Your task to perform on an android device: Open calendar and show me the third week of next month Image 0: 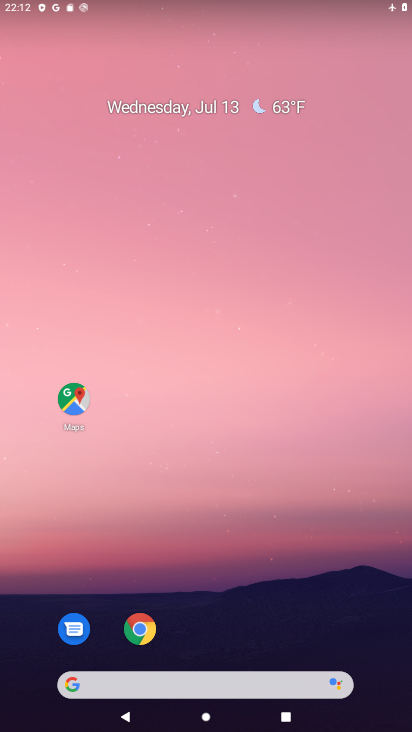
Step 0: drag from (306, 719) to (237, 346)
Your task to perform on an android device: Open calendar and show me the third week of next month Image 1: 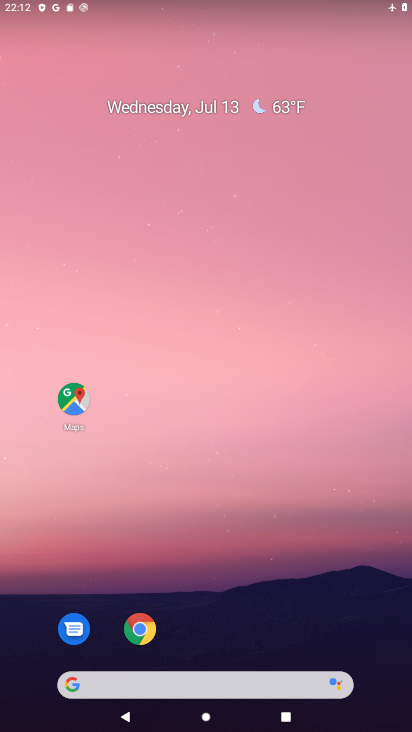
Step 1: drag from (341, 694) to (250, 285)
Your task to perform on an android device: Open calendar and show me the third week of next month Image 2: 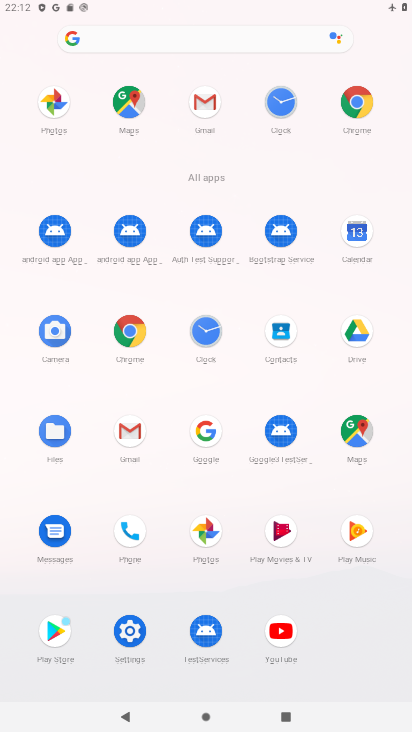
Step 2: click (353, 230)
Your task to perform on an android device: Open calendar and show me the third week of next month Image 3: 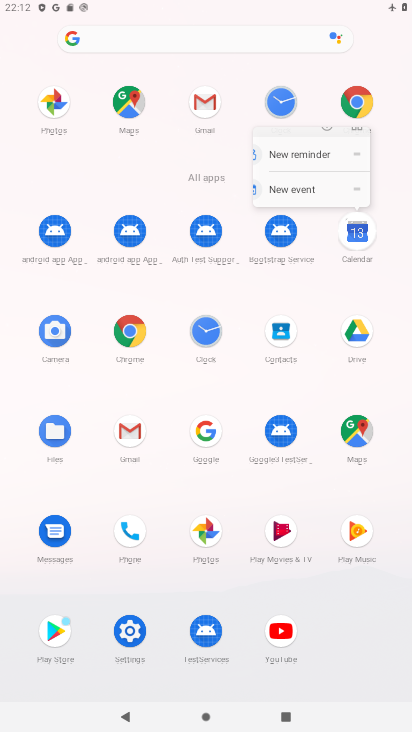
Step 3: click (353, 230)
Your task to perform on an android device: Open calendar and show me the third week of next month Image 4: 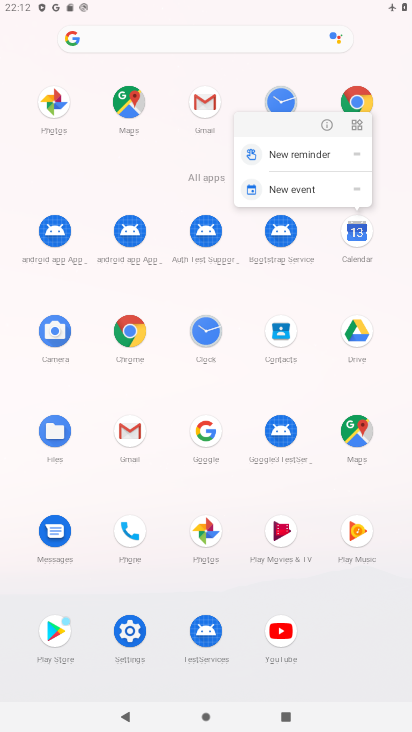
Step 4: click (353, 230)
Your task to perform on an android device: Open calendar and show me the third week of next month Image 5: 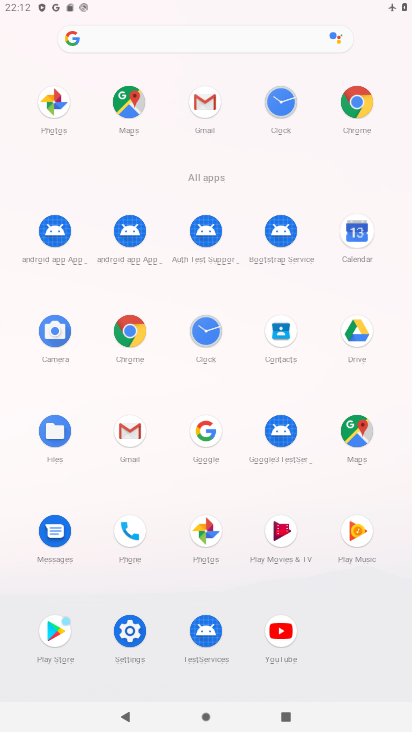
Step 5: click (353, 230)
Your task to perform on an android device: Open calendar and show me the third week of next month Image 6: 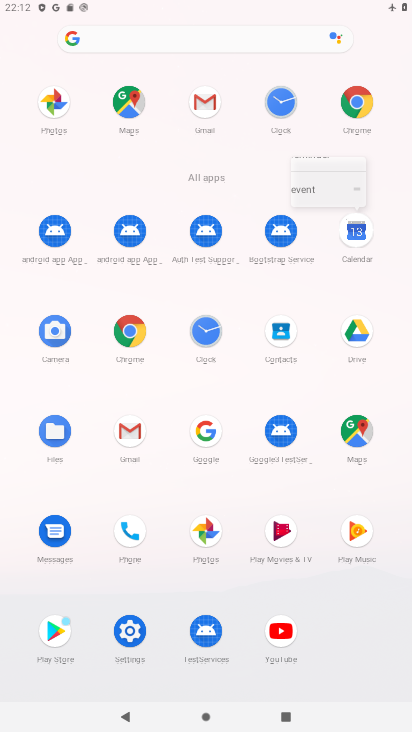
Step 6: click (354, 230)
Your task to perform on an android device: Open calendar and show me the third week of next month Image 7: 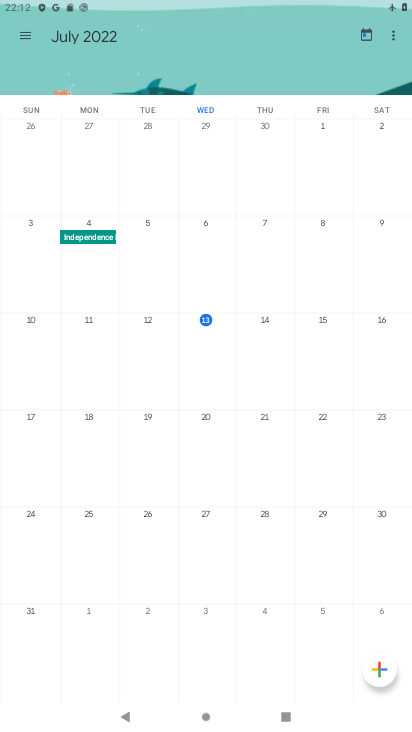
Step 7: drag from (340, 360) to (89, 470)
Your task to perform on an android device: Open calendar and show me the third week of next month Image 8: 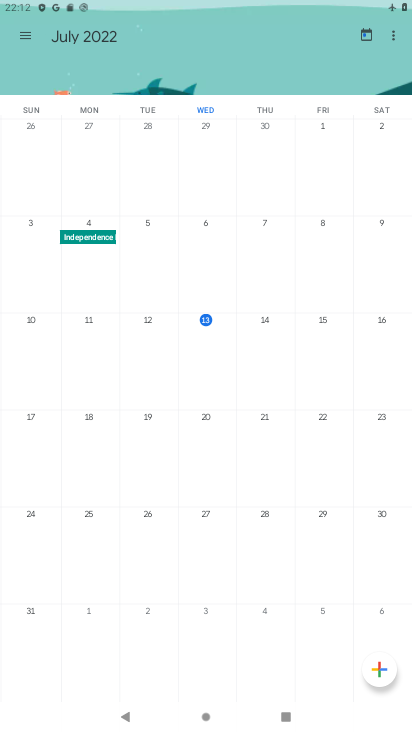
Step 8: drag from (377, 307) to (0, 246)
Your task to perform on an android device: Open calendar and show me the third week of next month Image 9: 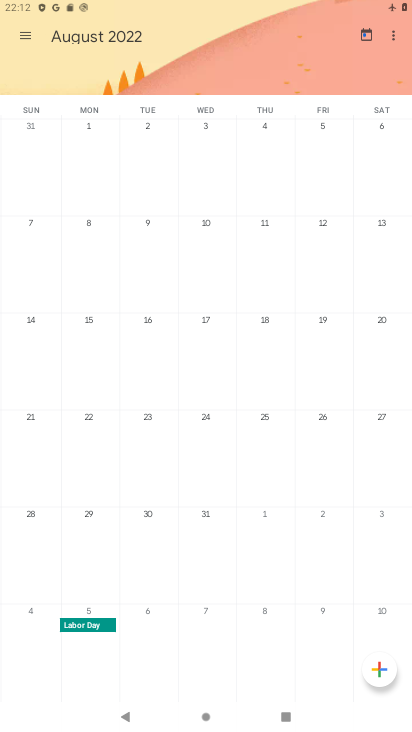
Step 9: click (157, 321)
Your task to perform on an android device: Open calendar and show me the third week of next month Image 10: 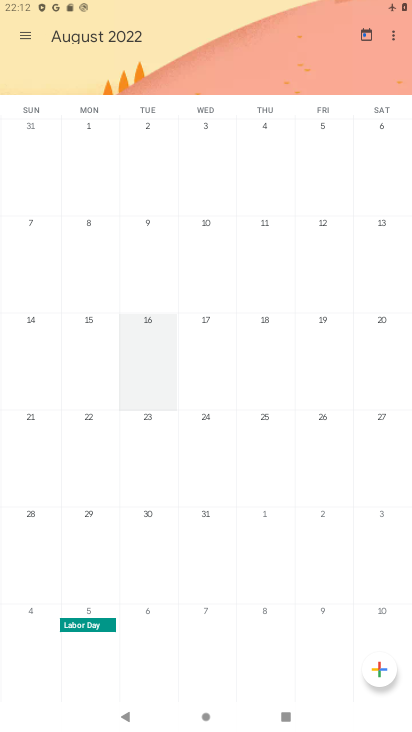
Step 10: click (156, 320)
Your task to perform on an android device: Open calendar and show me the third week of next month Image 11: 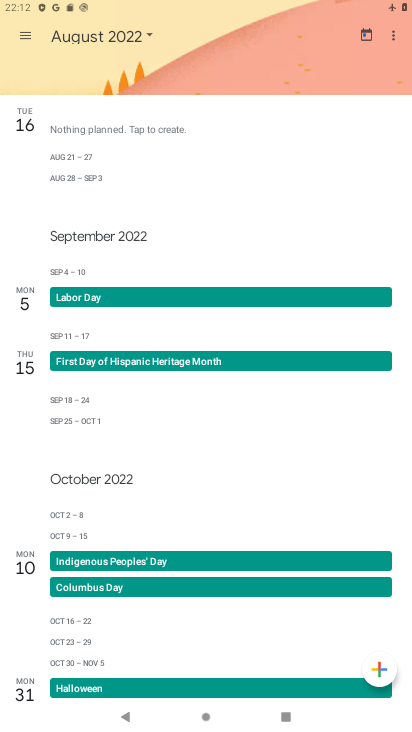
Step 11: task complete